Your task to perform on an android device: Empty the shopping cart on amazon.com. Search for asus rog on amazon.com, select the first entry, and add it to the cart. Image 0: 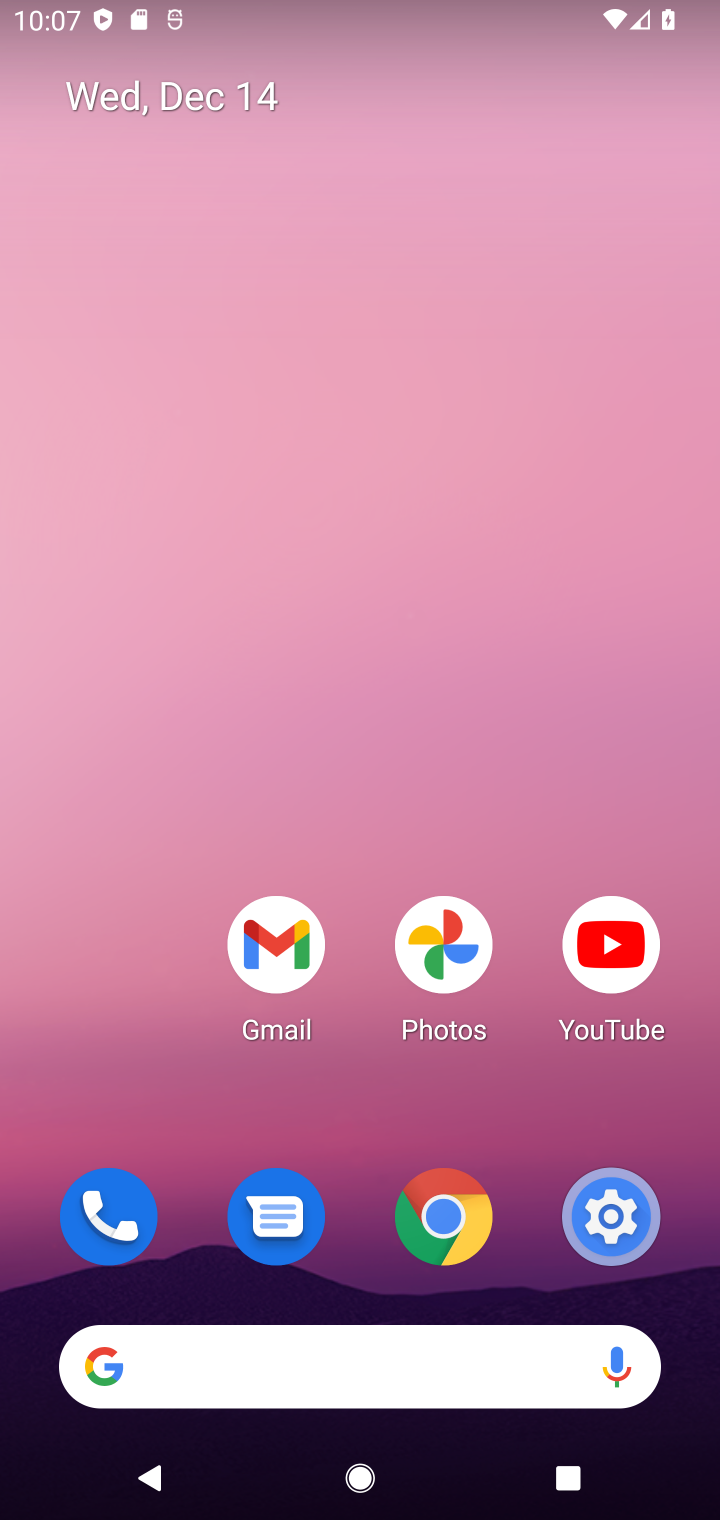
Step 0: drag from (214, 1194) to (243, 305)
Your task to perform on an android device: Empty the shopping cart on amazon.com. Search for asus rog on amazon.com, select the first entry, and add it to the cart. Image 1: 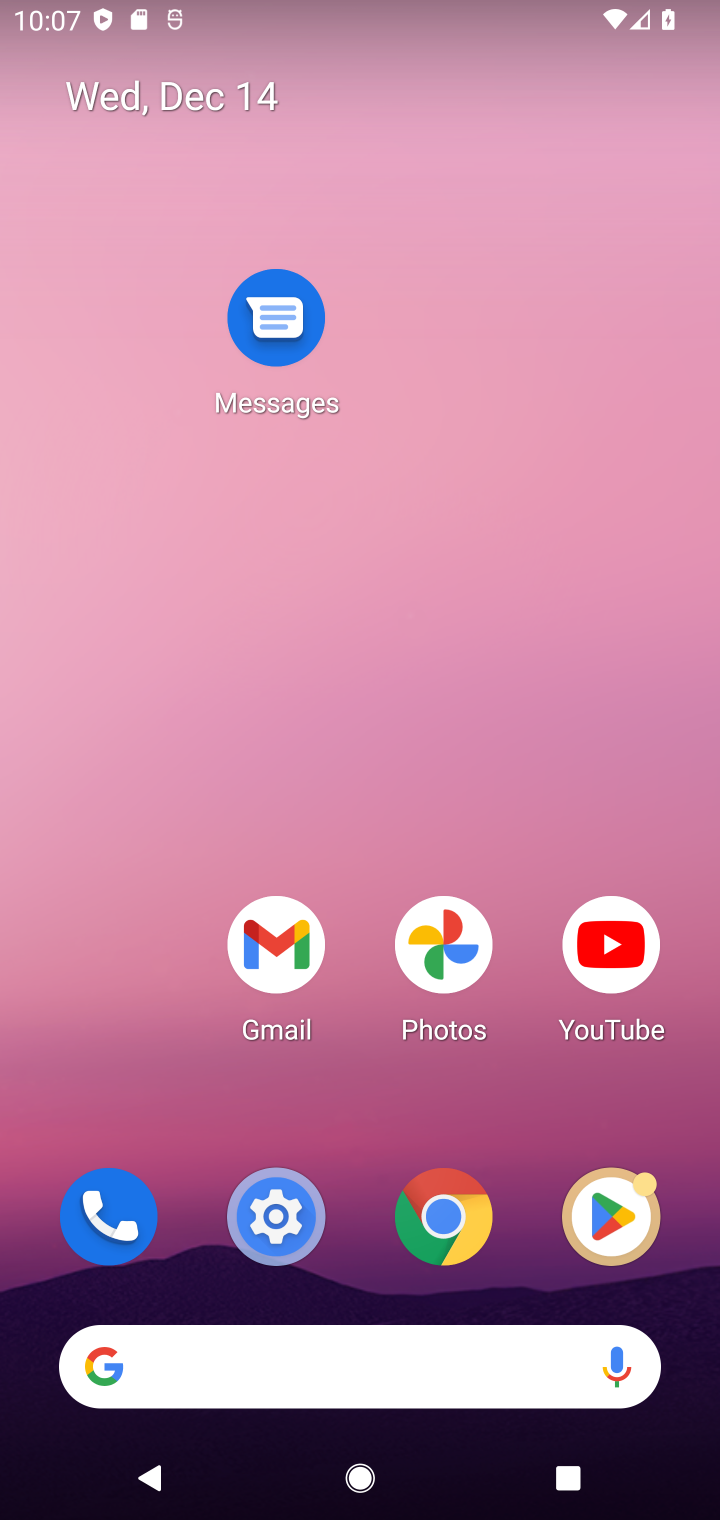
Step 1: drag from (367, 1230) to (394, 277)
Your task to perform on an android device: Empty the shopping cart on amazon.com. Search for asus rog on amazon.com, select the first entry, and add it to the cart. Image 2: 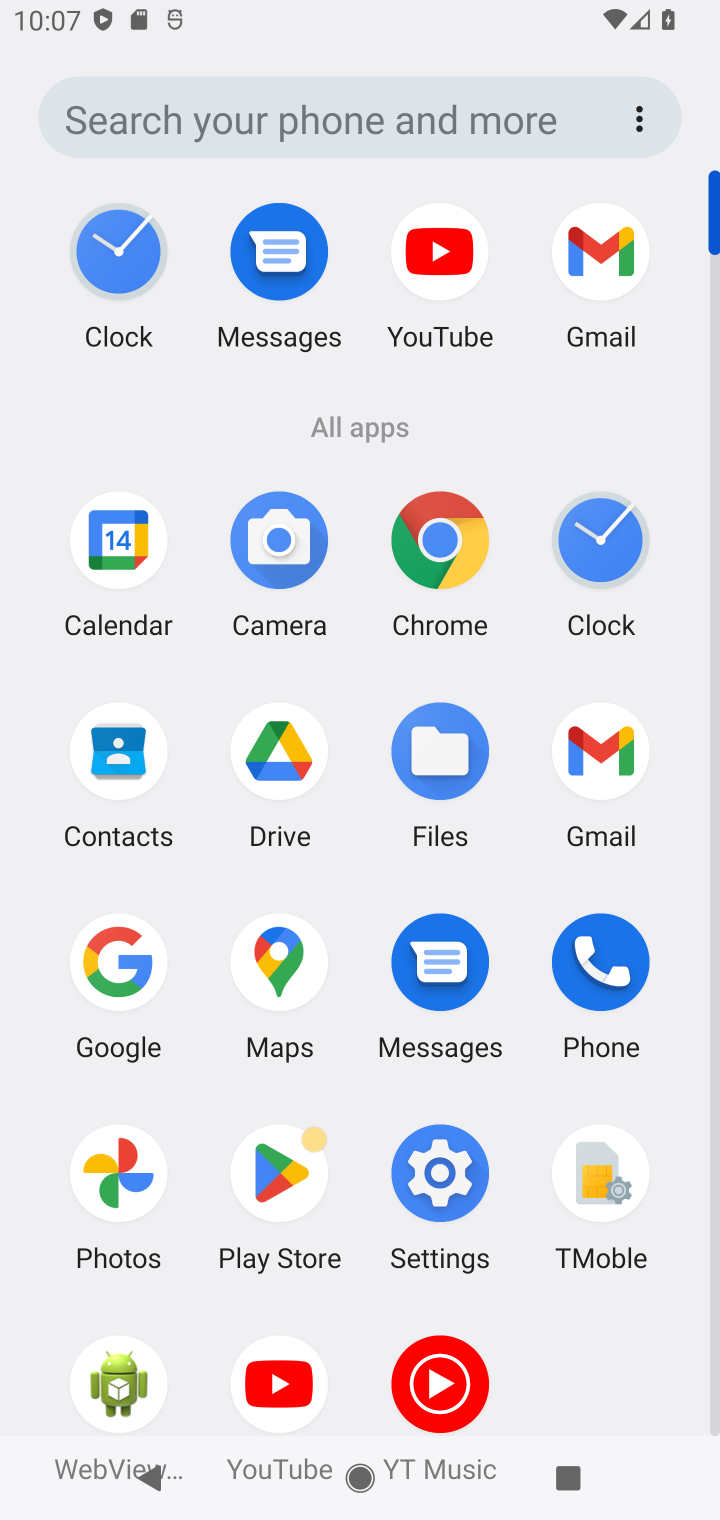
Step 2: click (93, 978)
Your task to perform on an android device: Empty the shopping cart on amazon.com. Search for asus rog on amazon.com, select the first entry, and add it to the cart. Image 3: 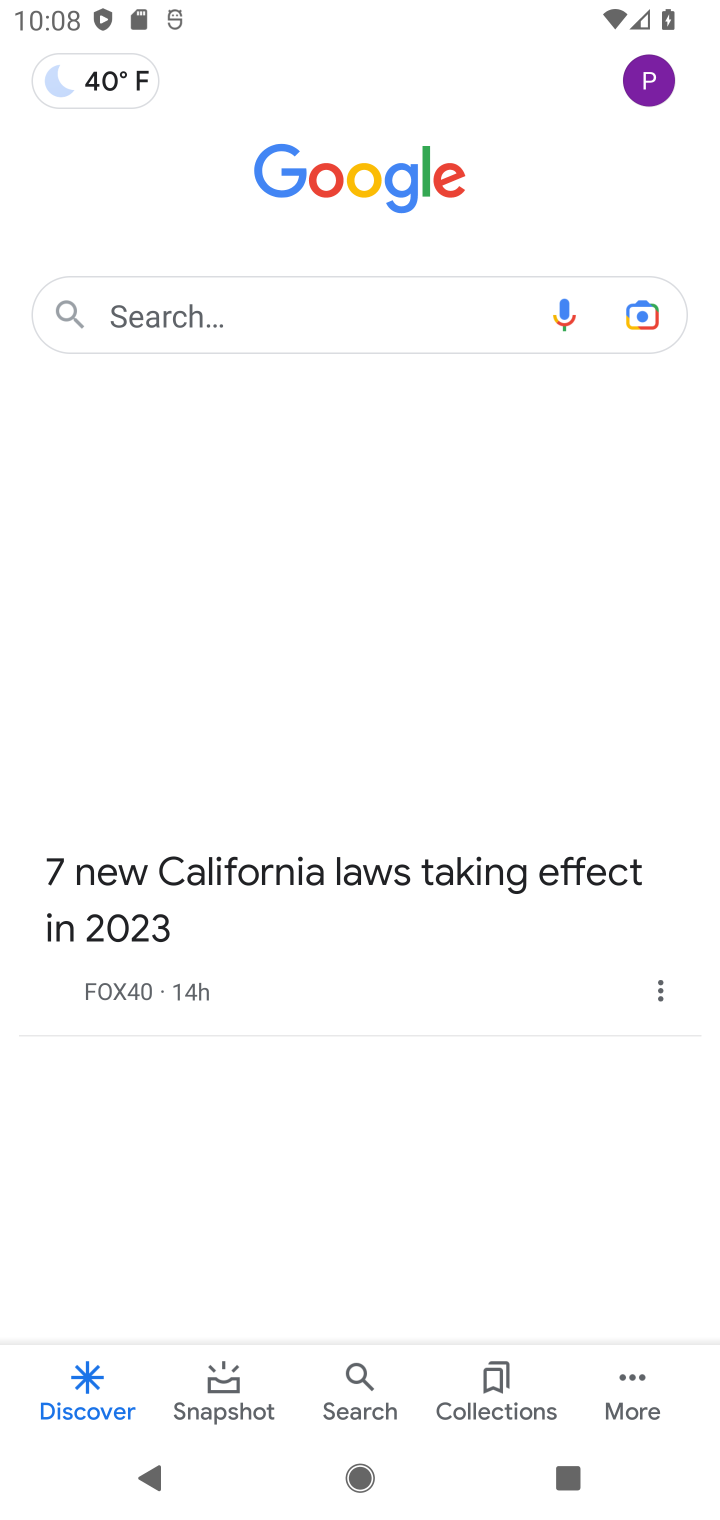
Step 3: click (294, 307)
Your task to perform on an android device: Empty the shopping cart on amazon.com. Search for asus rog on amazon.com, select the first entry, and add it to the cart. Image 4: 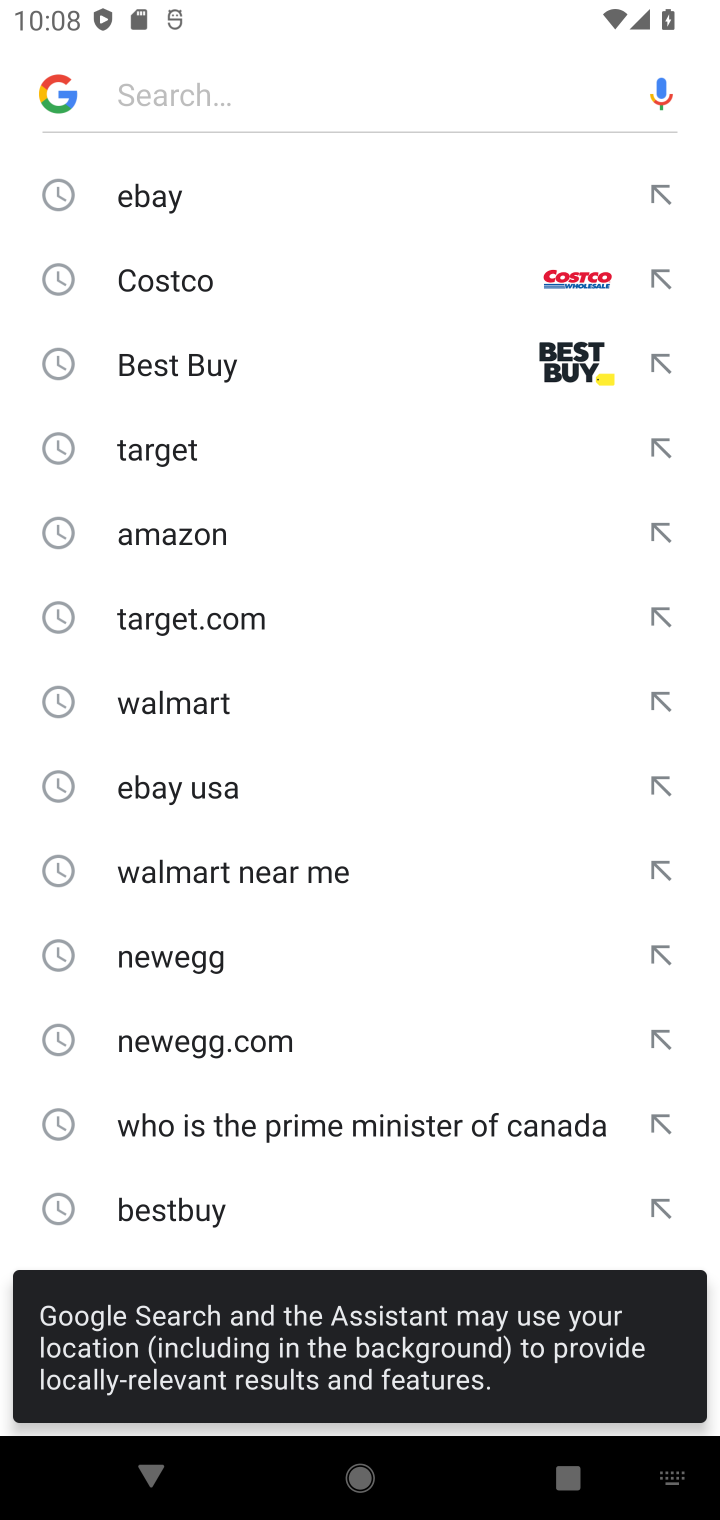
Step 4: click (178, 536)
Your task to perform on an android device: Empty the shopping cart on amazon.com. Search for asus rog on amazon.com, select the first entry, and add it to the cart. Image 5: 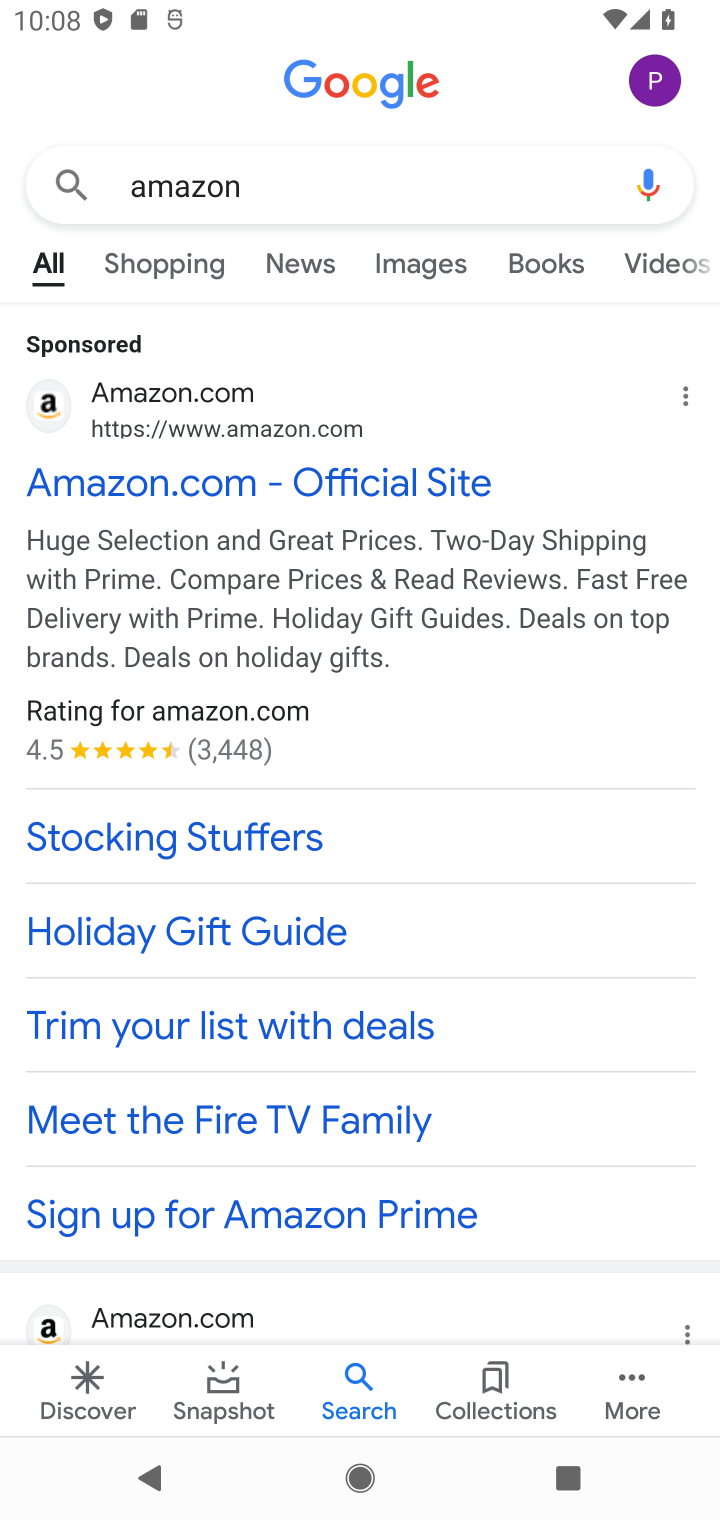
Step 5: click (150, 484)
Your task to perform on an android device: Empty the shopping cart on amazon.com. Search for asus rog on amazon.com, select the first entry, and add it to the cart. Image 6: 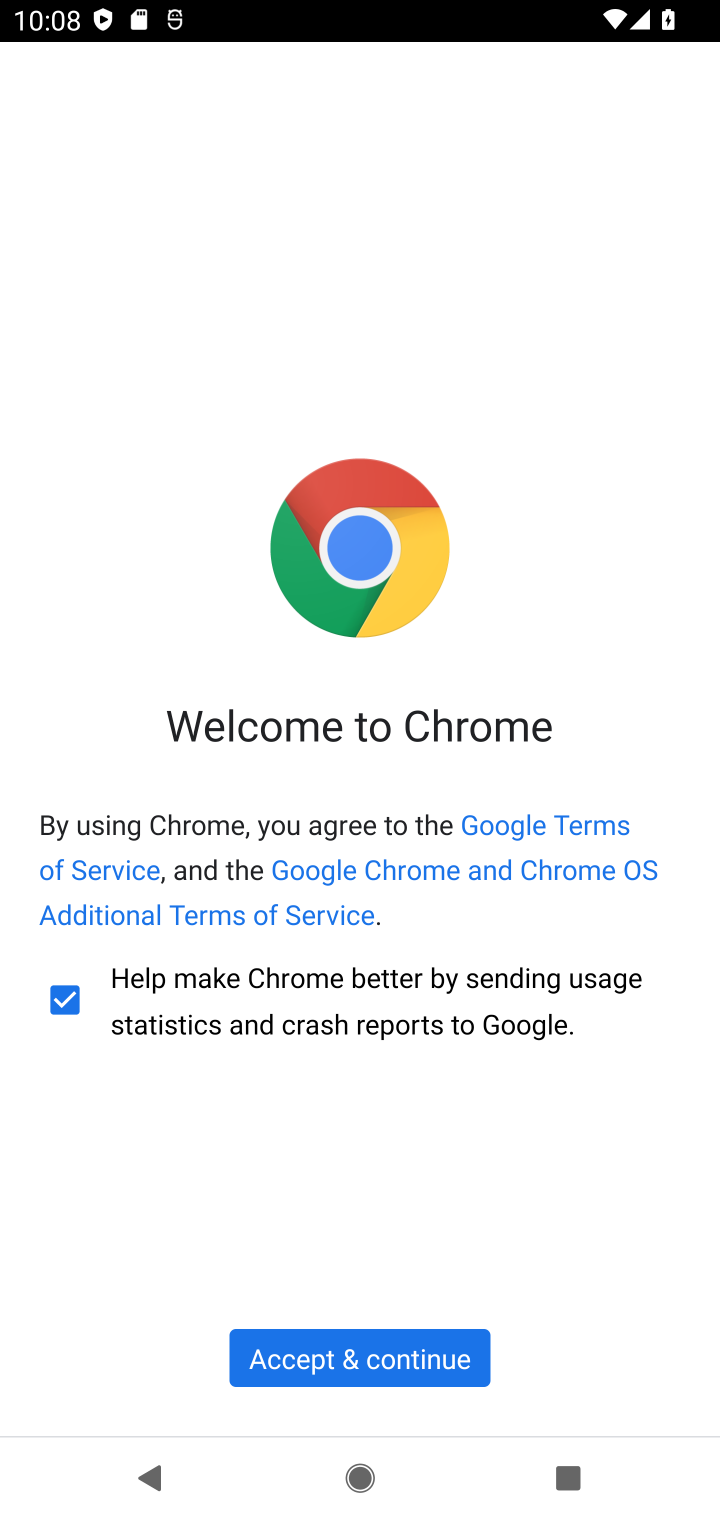
Step 6: click (399, 1368)
Your task to perform on an android device: Empty the shopping cart on amazon.com. Search for asus rog on amazon.com, select the first entry, and add it to the cart. Image 7: 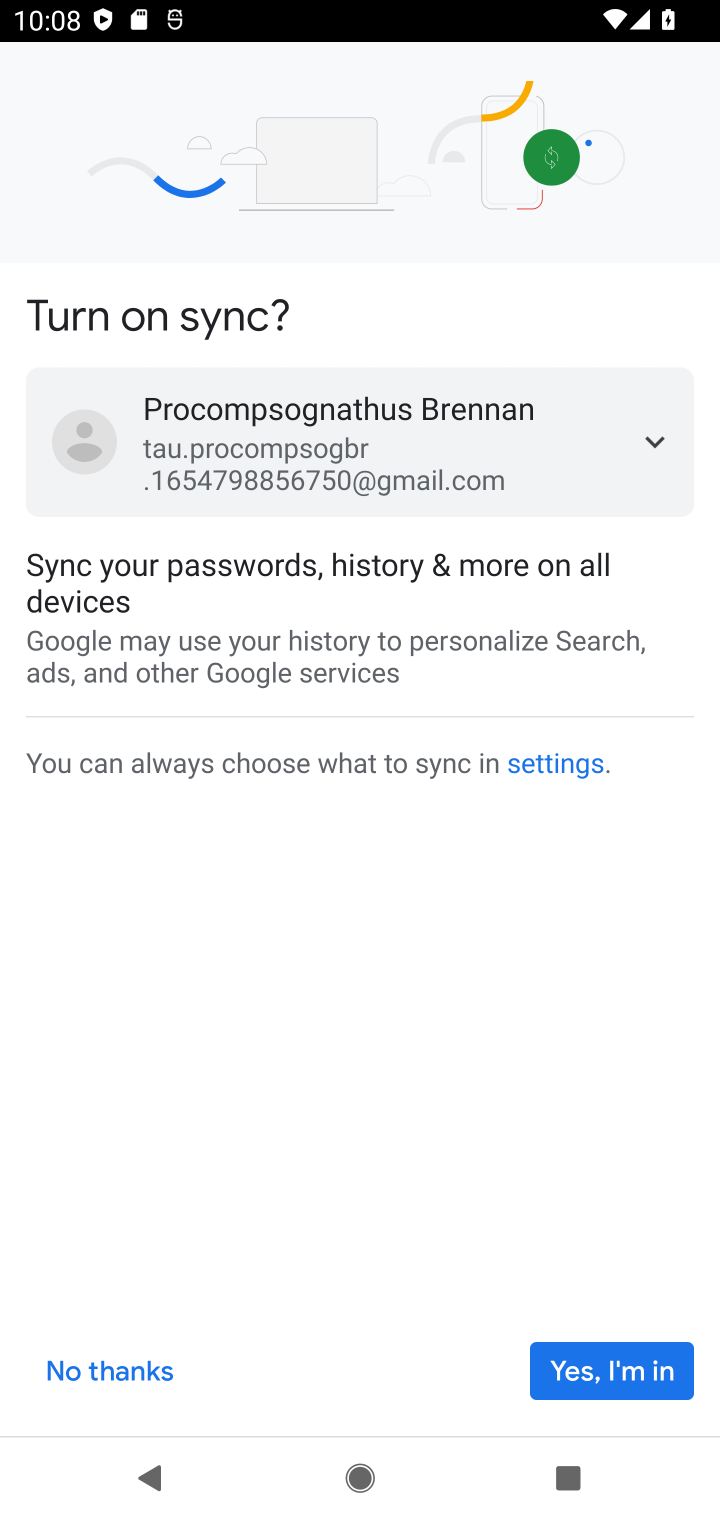
Step 7: click (642, 1365)
Your task to perform on an android device: Empty the shopping cart on amazon.com. Search for asus rog on amazon.com, select the first entry, and add it to the cart. Image 8: 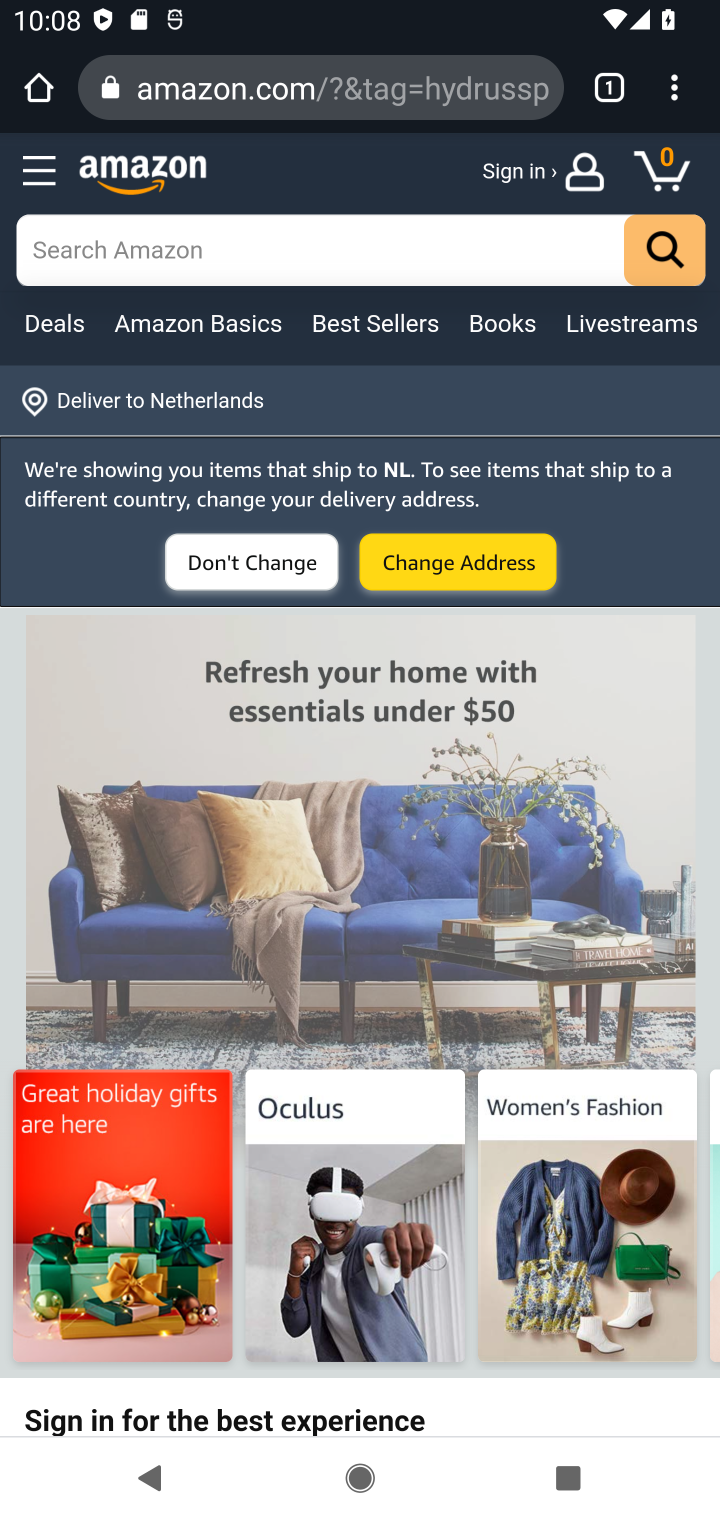
Step 8: click (196, 254)
Your task to perform on an android device: Empty the shopping cart on amazon.com. Search for asus rog on amazon.com, select the first entry, and add it to the cart. Image 9: 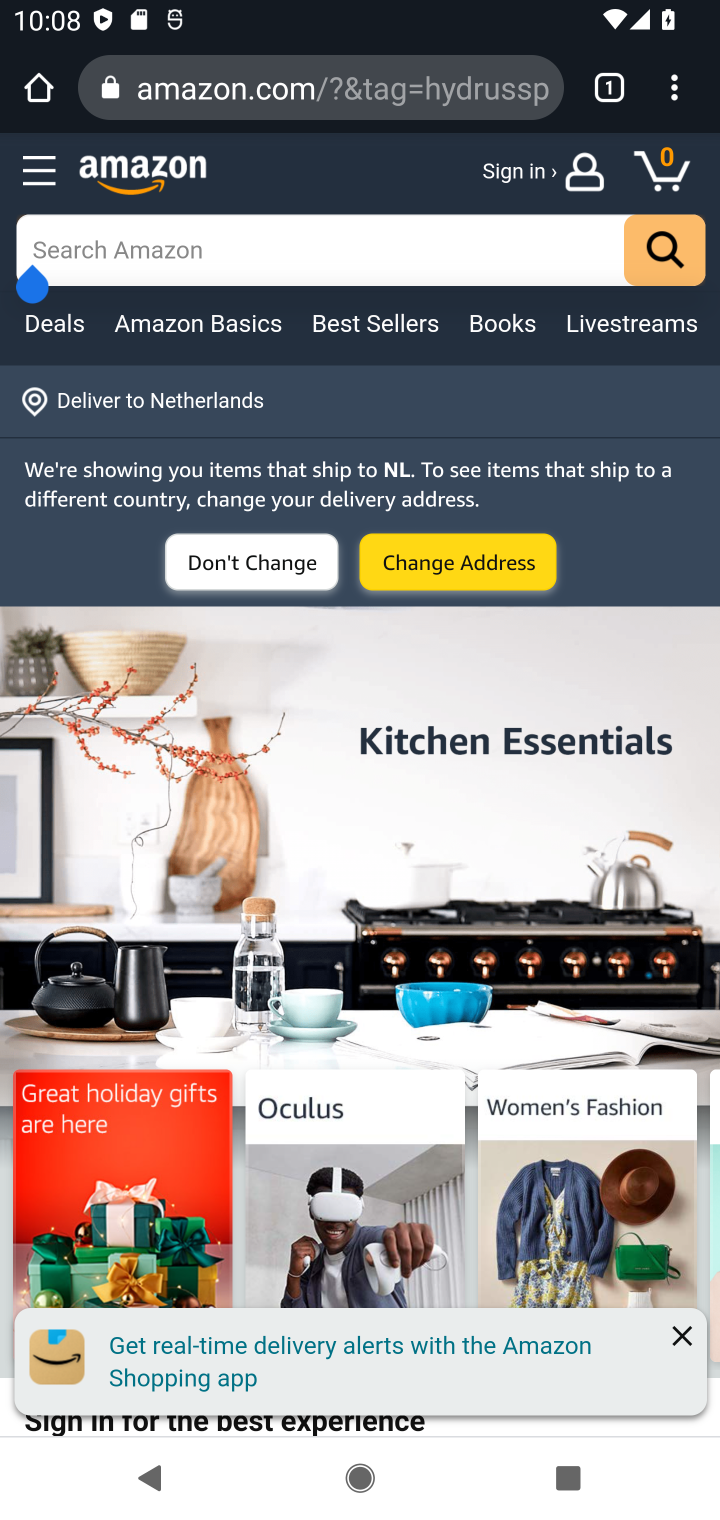
Step 9: click (193, 246)
Your task to perform on an android device: Empty the shopping cart on amazon.com. Search for asus rog on amazon.com, select the first entry, and add it to the cart. Image 10: 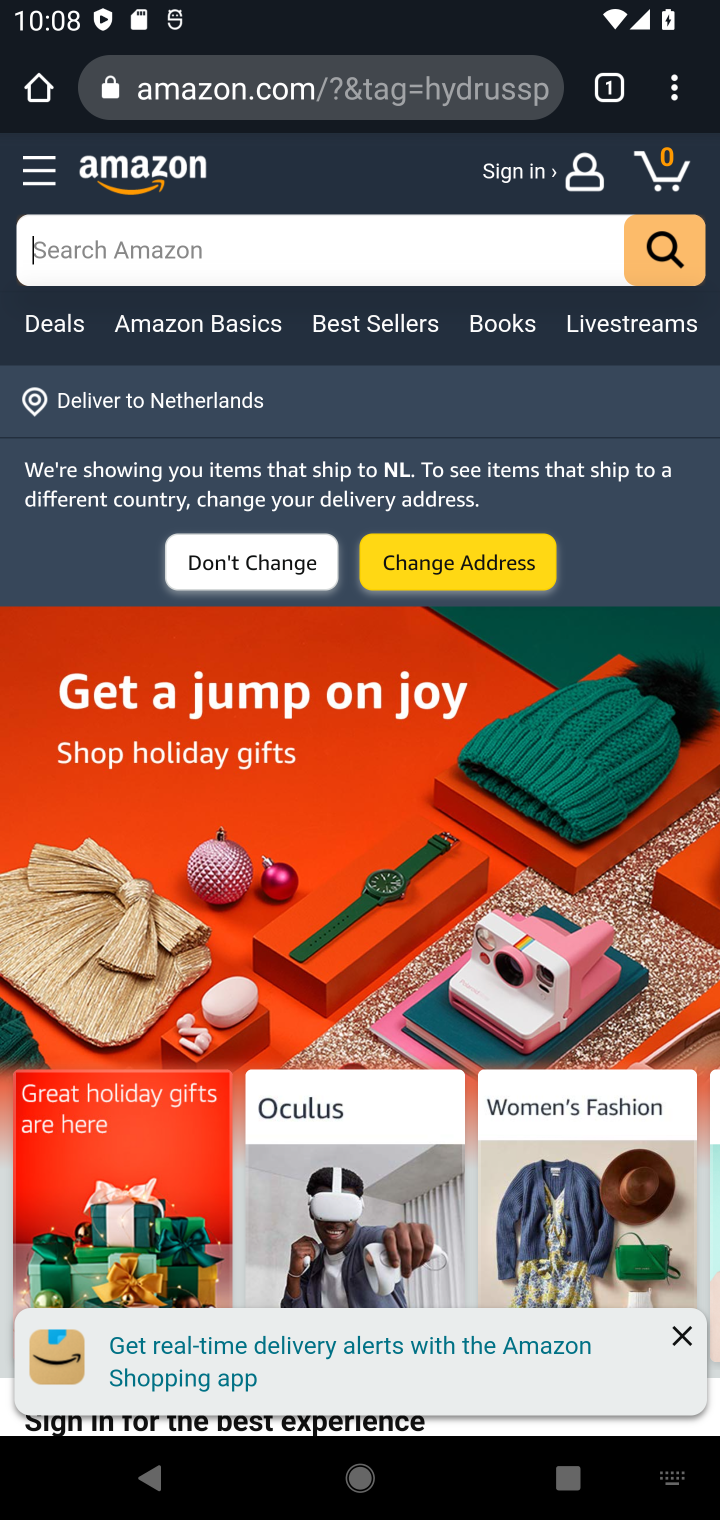
Step 10: type "asus rog "
Your task to perform on an android device: Empty the shopping cart on amazon.com. Search for asus rog on amazon.com, select the first entry, and add it to the cart. Image 11: 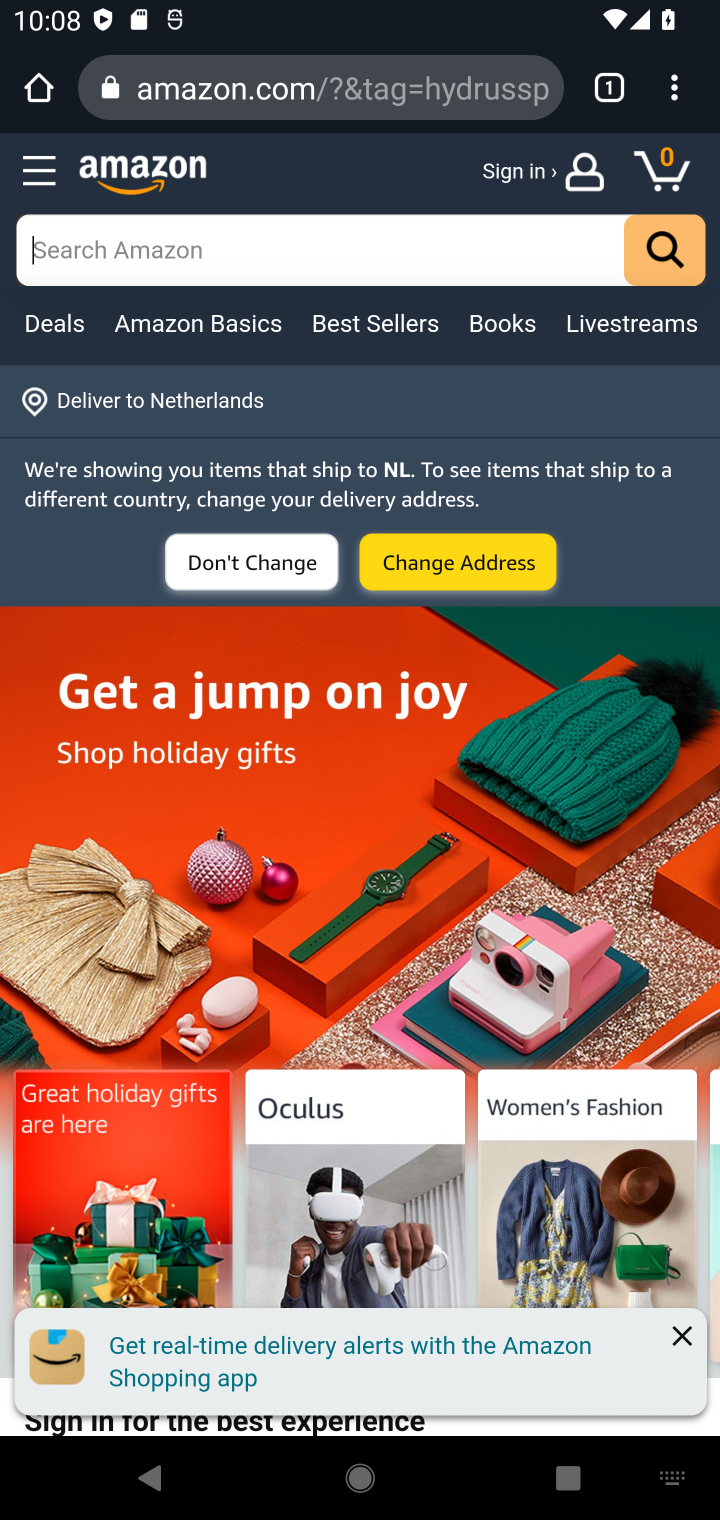
Step 11: click (668, 257)
Your task to perform on an android device: Empty the shopping cart on amazon.com. Search for asus rog on amazon.com, select the first entry, and add it to the cart. Image 12: 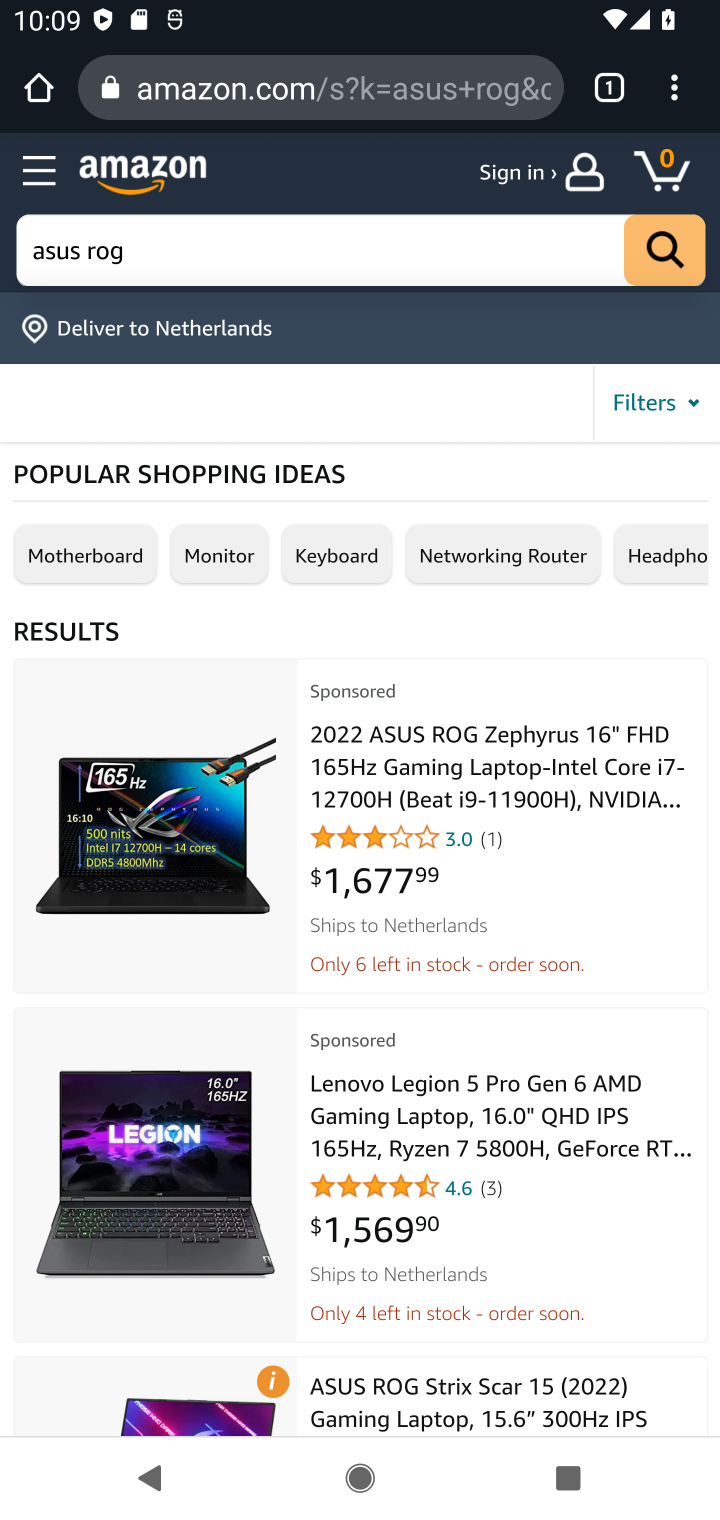
Step 12: click (461, 745)
Your task to perform on an android device: Empty the shopping cart on amazon.com. Search for asus rog on amazon.com, select the first entry, and add it to the cart. Image 13: 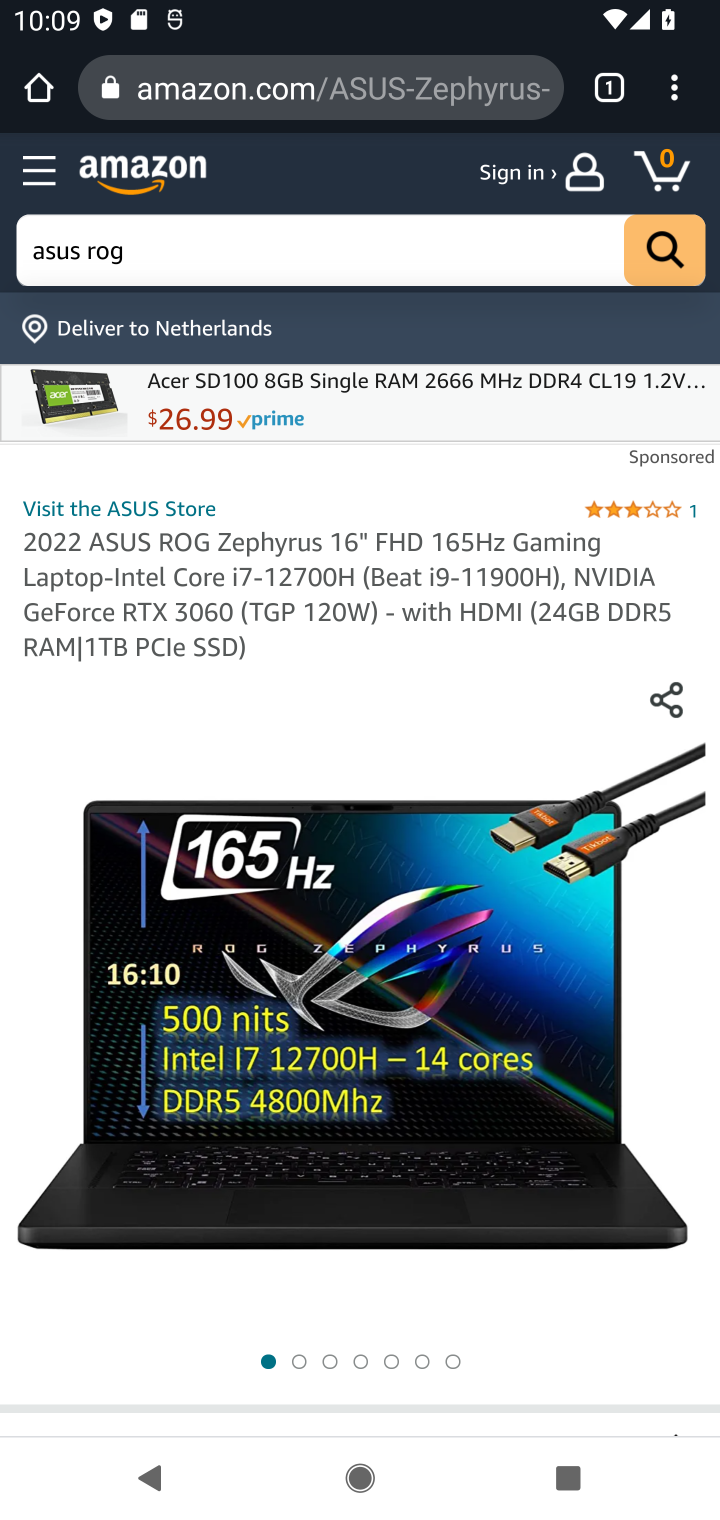
Step 13: drag from (491, 1277) to (482, 520)
Your task to perform on an android device: Empty the shopping cart on amazon.com. Search for asus rog on amazon.com, select the first entry, and add it to the cart. Image 14: 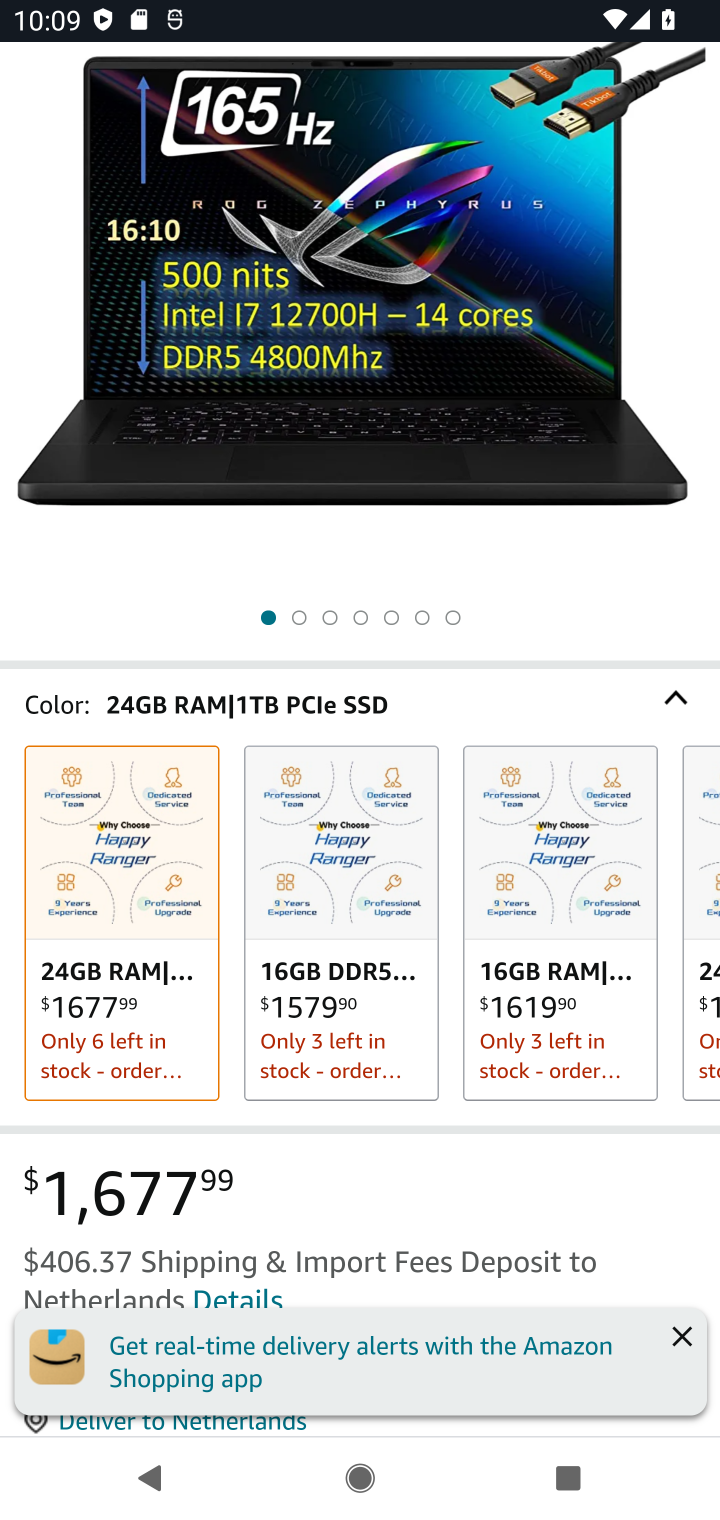
Step 14: drag from (503, 778) to (494, 439)
Your task to perform on an android device: Empty the shopping cart on amazon.com. Search for asus rog on amazon.com, select the first entry, and add it to the cart. Image 15: 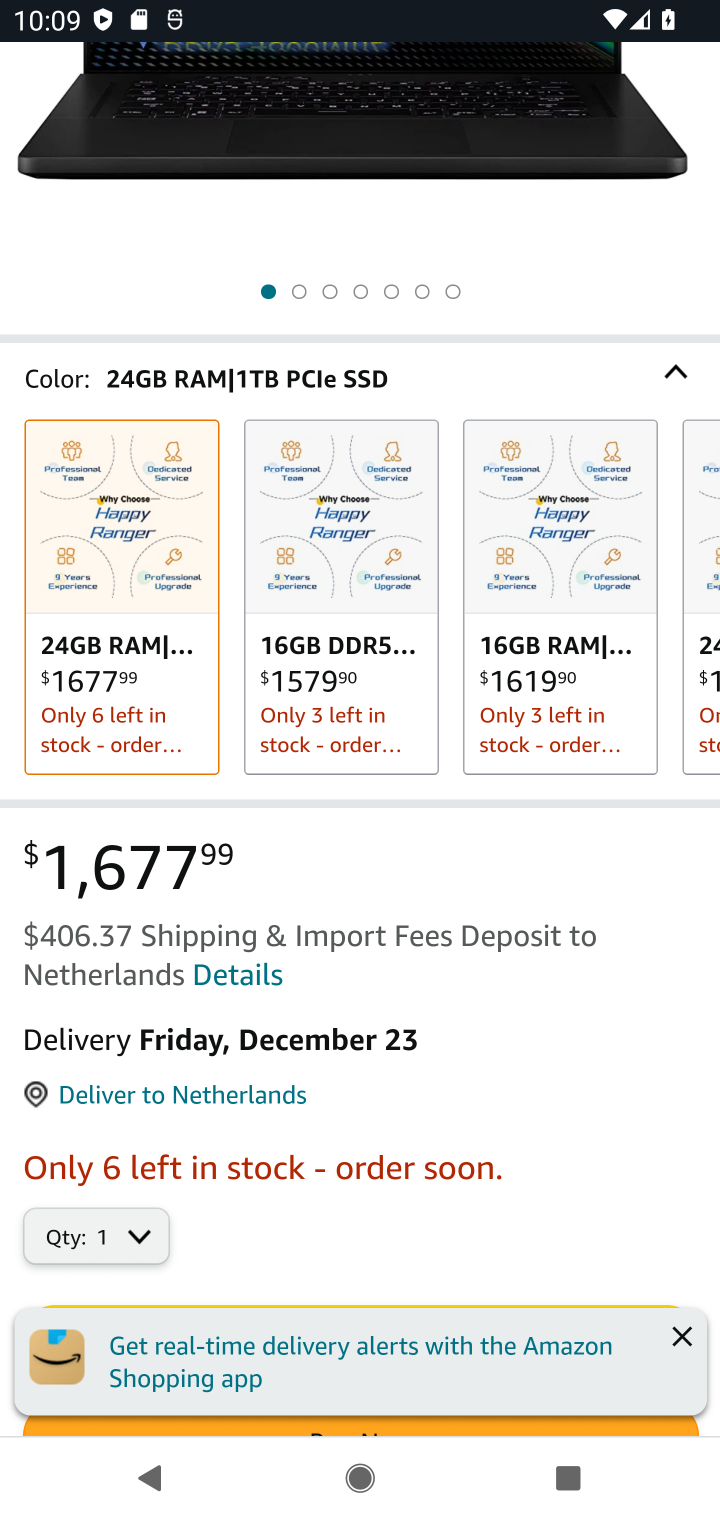
Step 15: drag from (466, 1224) to (340, 259)
Your task to perform on an android device: Empty the shopping cart on amazon.com. Search for asus rog on amazon.com, select the first entry, and add it to the cart. Image 16: 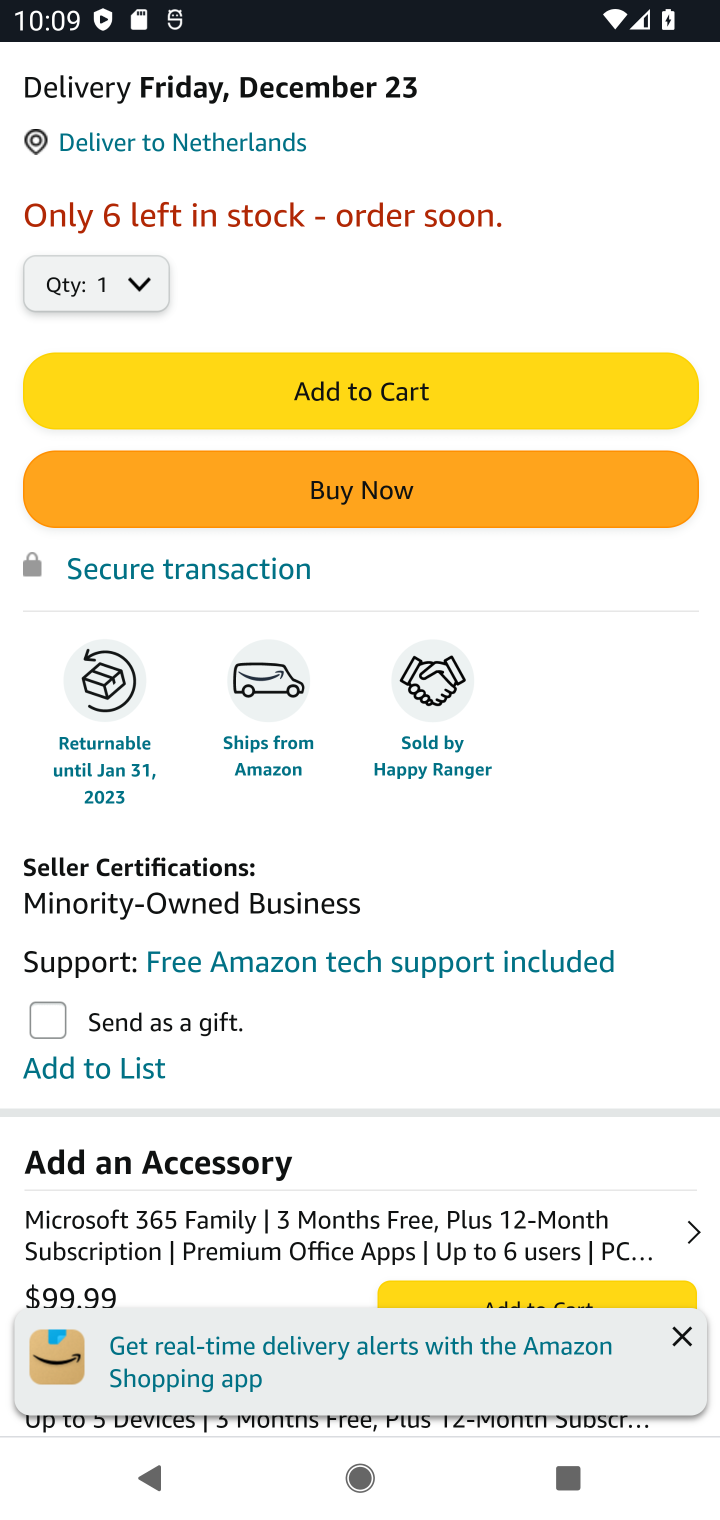
Step 16: click (351, 378)
Your task to perform on an android device: Empty the shopping cart on amazon.com. Search for asus rog on amazon.com, select the first entry, and add it to the cart. Image 17: 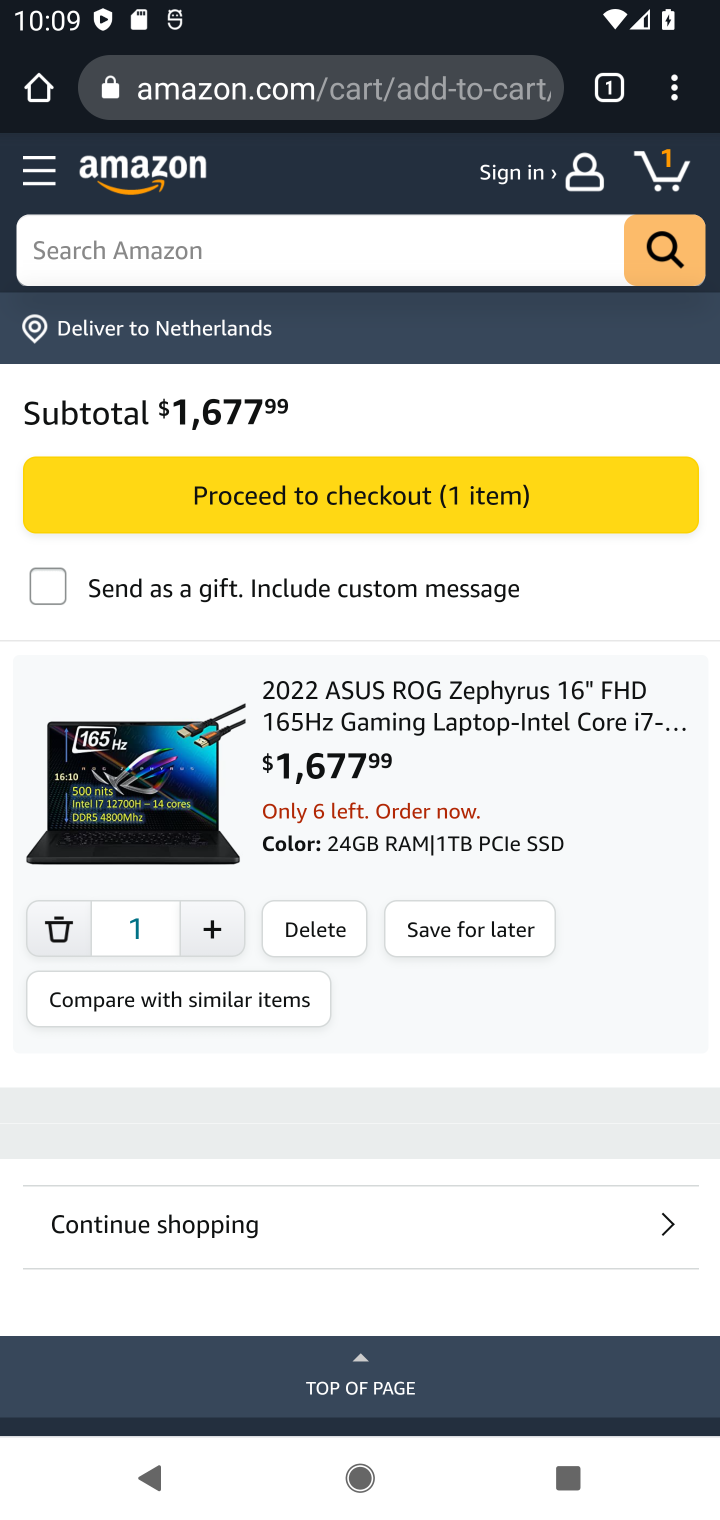
Step 17: click (340, 510)
Your task to perform on an android device: Empty the shopping cart on amazon.com. Search for asus rog on amazon.com, select the first entry, and add it to the cart. Image 18: 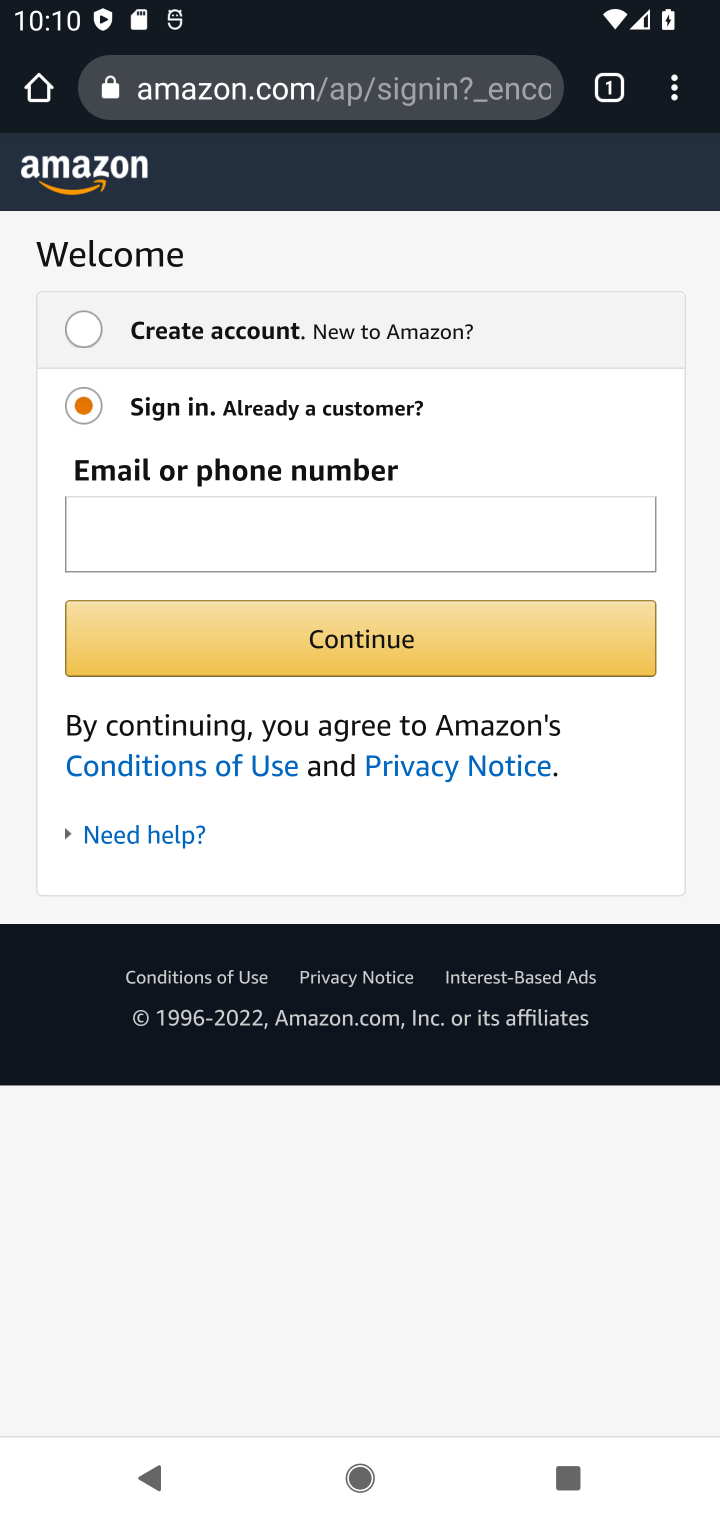
Step 18: task complete